Your task to perform on an android device: turn off sleep mode Image 0: 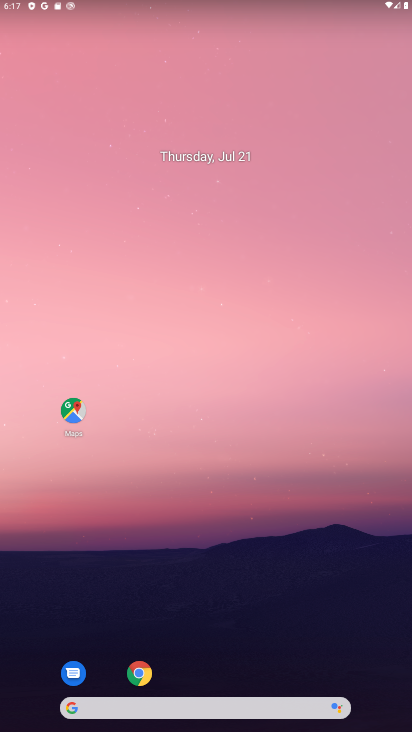
Step 0: drag from (190, 511) to (263, 86)
Your task to perform on an android device: turn off sleep mode Image 1: 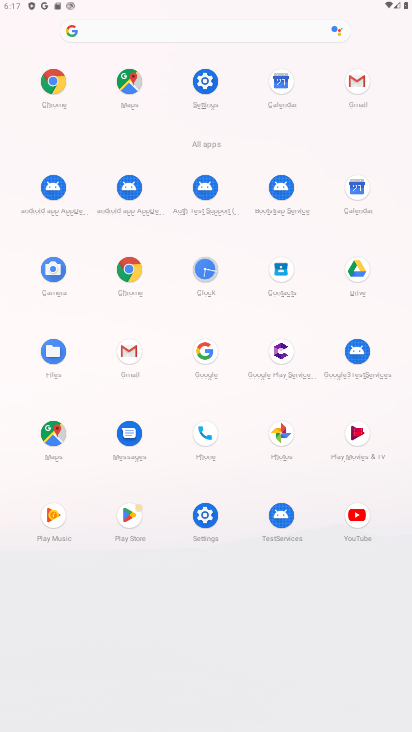
Step 1: task complete